Your task to perform on an android device: Open wifi settings Image 0: 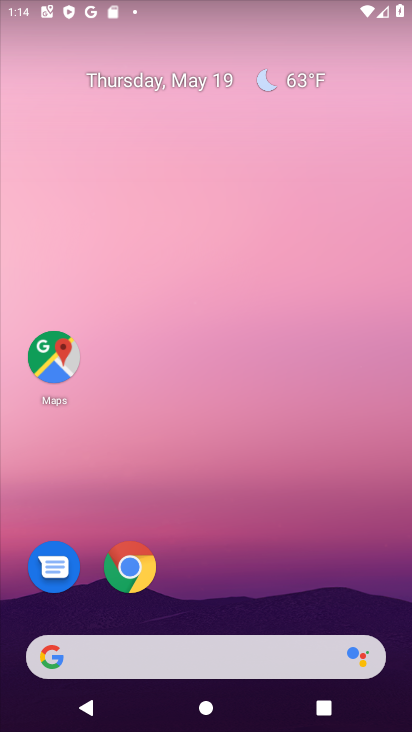
Step 0: drag from (316, 460) to (254, 1)
Your task to perform on an android device: Open wifi settings Image 1: 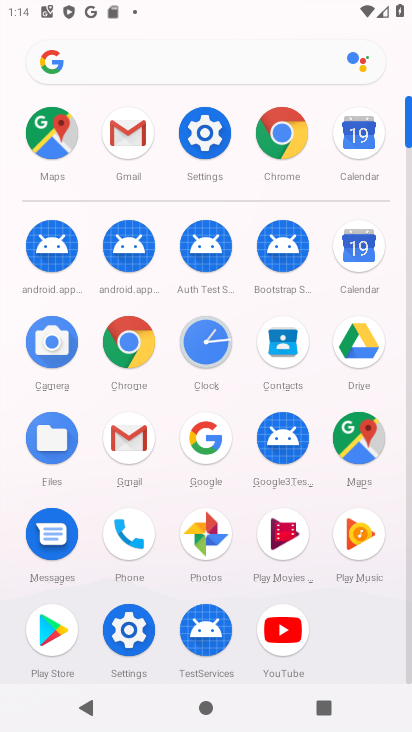
Step 1: click (201, 133)
Your task to perform on an android device: Open wifi settings Image 2: 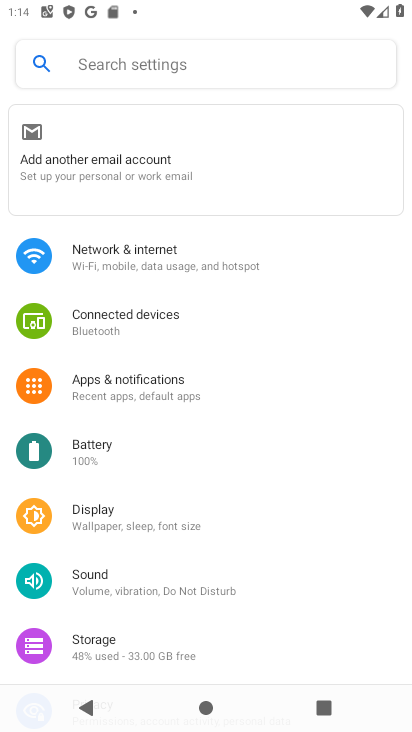
Step 2: click (188, 242)
Your task to perform on an android device: Open wifi settings Image 3: 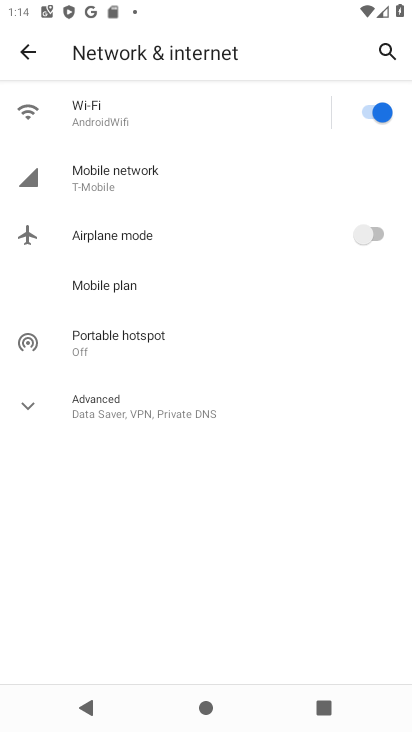
Step 3: task complete